Your task to perform on an android device: show emergency info Image 0: 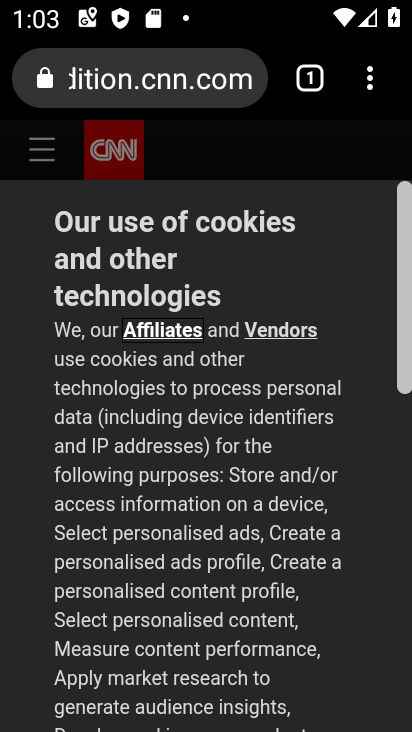
Step 0: press home button
Your task to perform on an android device: show emergency info Image 1: 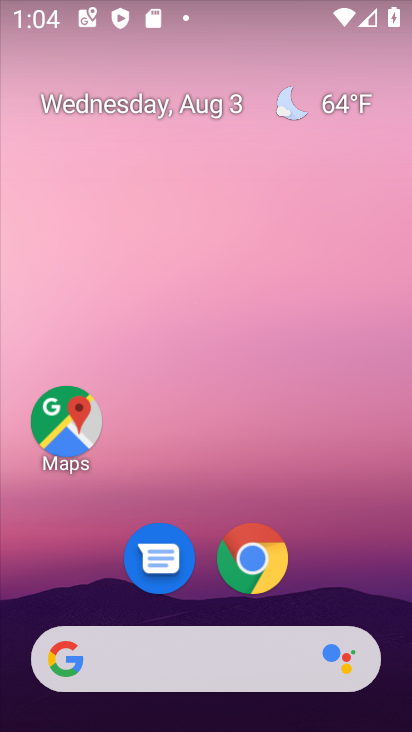
Step 1: drag from (388, 575) to (351, 279)
Your task to perform on an android device: show emergency info Image 2: 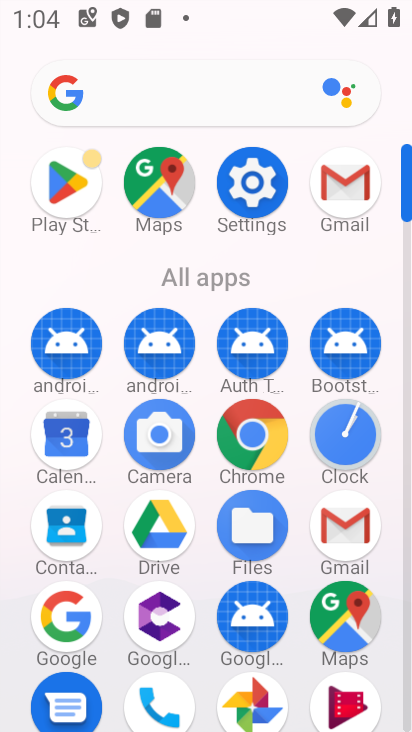
Step 2: click (245, 178)
Your task to perform on an android device: show emergency info Image 3: 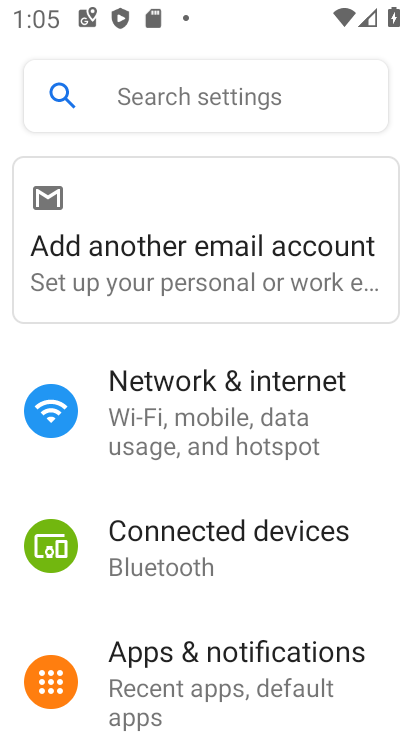
Step 3: drag from (323, 565) to (298, 170)
Your task to perform on an android device: show emergency info Image 4: 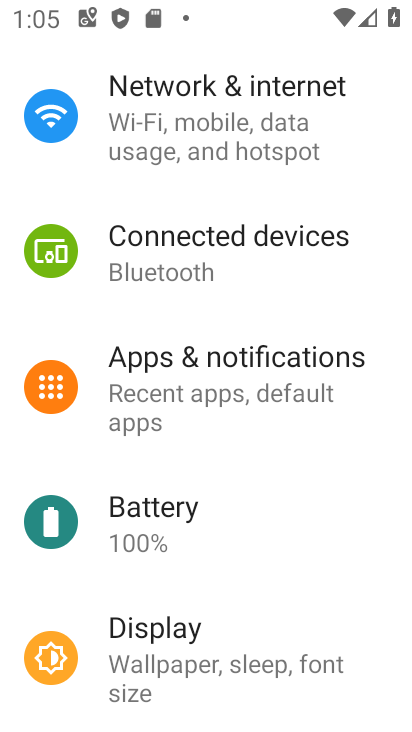
Step 4: drag from (303, 535) to (288, 91)
Your task to perform on an android device: show emergency info Image 5: 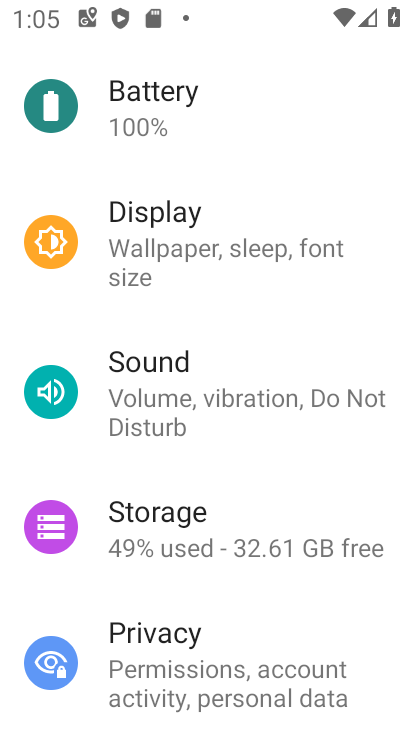
Step 5: drag from (294, 432) to (258, 136)
Your task to perform on an android device: show emergency info Image 6: 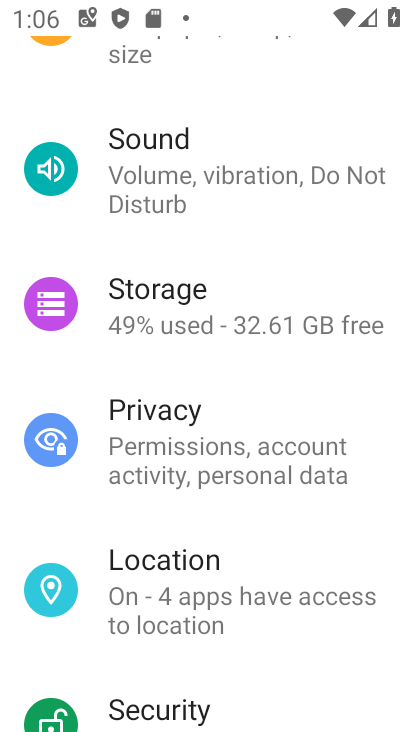
Step 6: drag from (342, 498) to (305, 161)
Your task to perform on an android device: show emergency info Image 7: 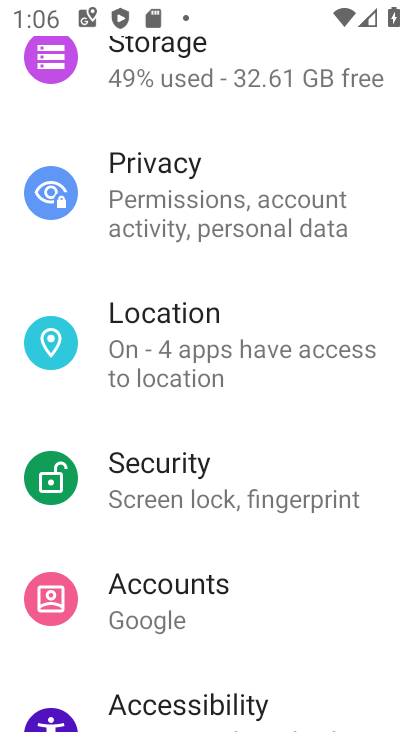
Step 7: drag from (329, 565) to (285, 279)
Your task to perform on an android device: show emergency info Image 8: 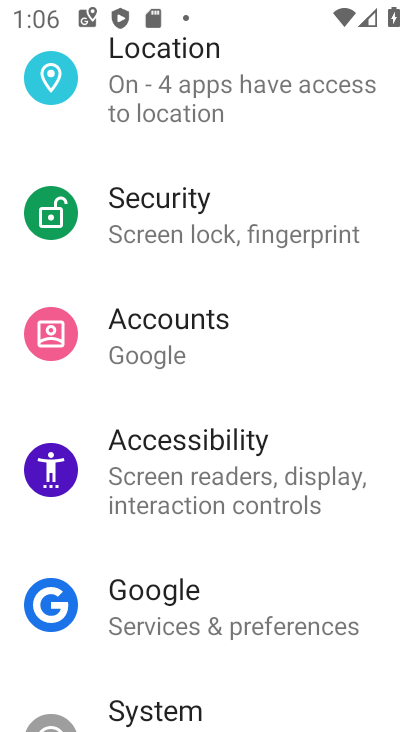
Step 8: drag from (307, 590) to (256, 286)
Your task to perform on an android device: show emergency info Image 9: 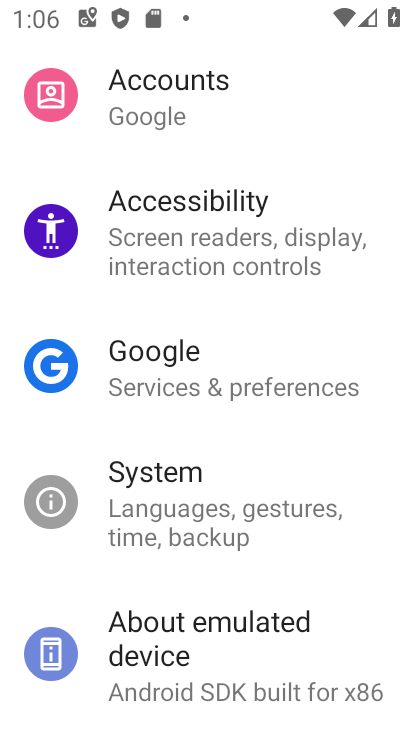
Step 9: click (276, 667)
Your task to perform on an android device: show emergency info Image 10: 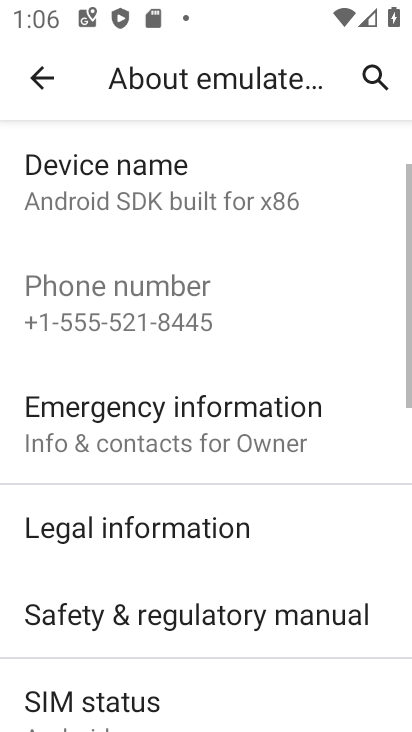
Step 10: click (191, 458)
Your task to perform on an android device: show emergency info Image 11: 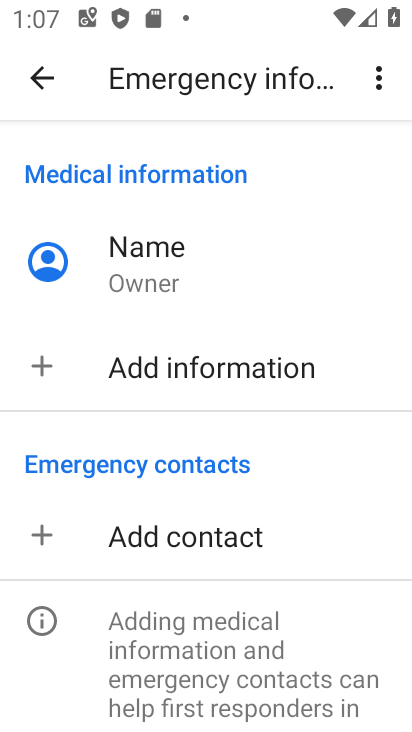
Step 11: task complete